Your task to perform on an android device: star an email in the gmail app Image 0: 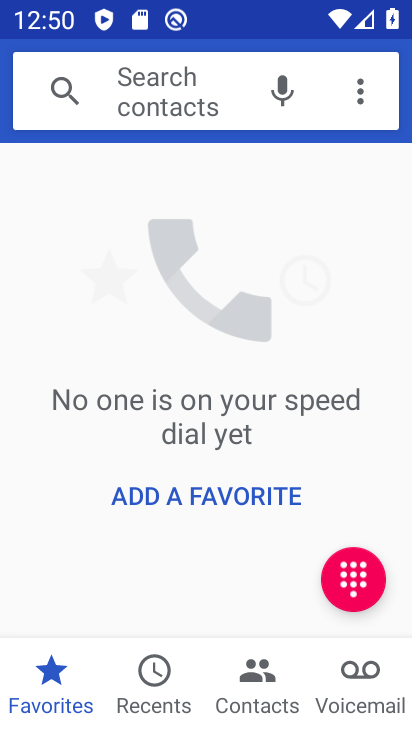
Step 0: press home button
Your task to perform on an android device: star an email in the gmail app Image 1: 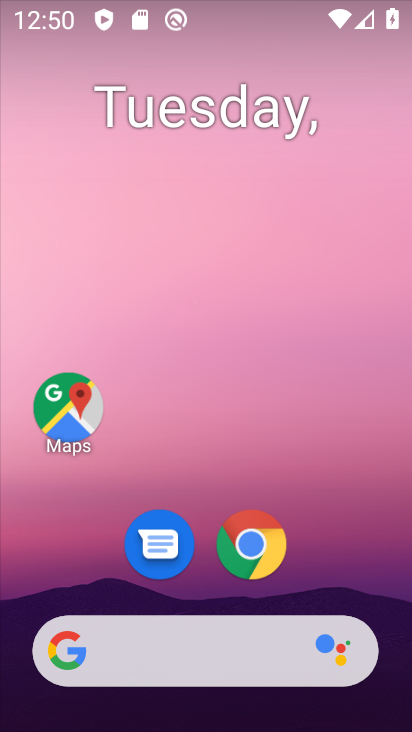
Step 1: drag from (398, 638) to (293, 122)
Your task to perform on an android device: star an email in the gmail app Image 2: 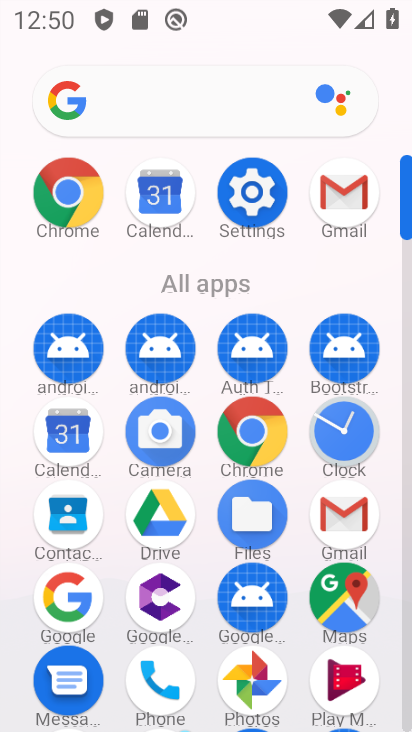
Step 2: click (407, 684)
Your task to perform on an android device: star an email in the gmail app Image 3: 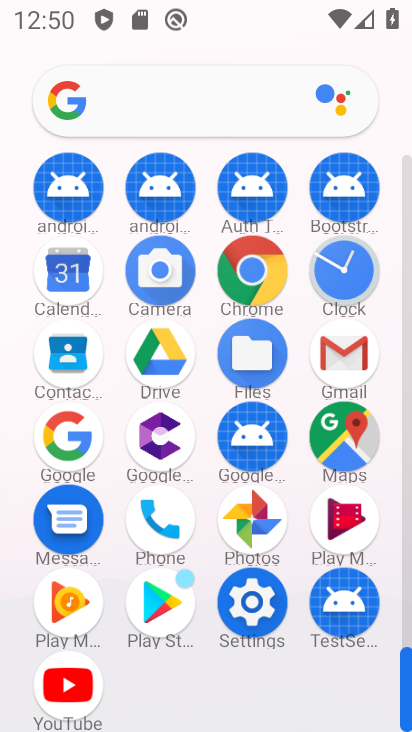
Step 3: click (344, 355)
Your task to perform on an android device: star an email in the gmail app Image 4: 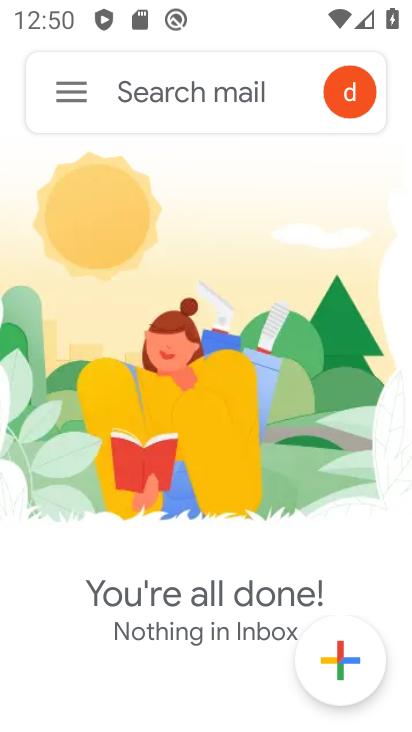
Step 4: click (74, 99)
Your task to perform on an android device: star an email in the gmail app Image 5: 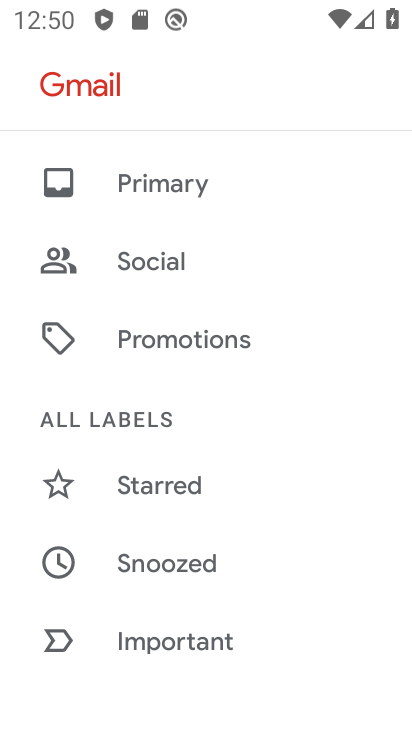
Step 5: drag from (276, 586) to (257, 197)
Your task to perform on an android device: star an email in the gmail app Image 6: 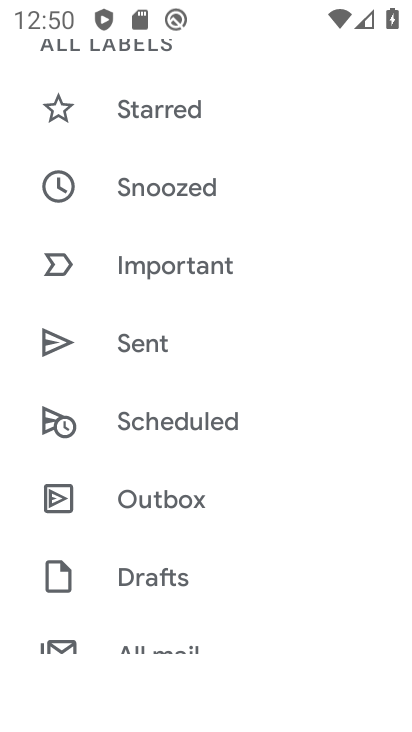
Step 6: drag from (278, 644) to (305, 263)
Your task to perform on an android device: star an email in the gmail app Image 7: 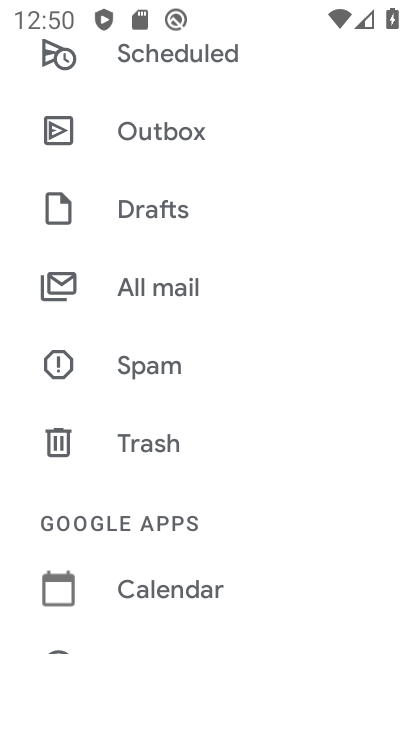
Step 7: click (142, 275)
Your task to perform on an android device: star an email in the gmail app Image 8: 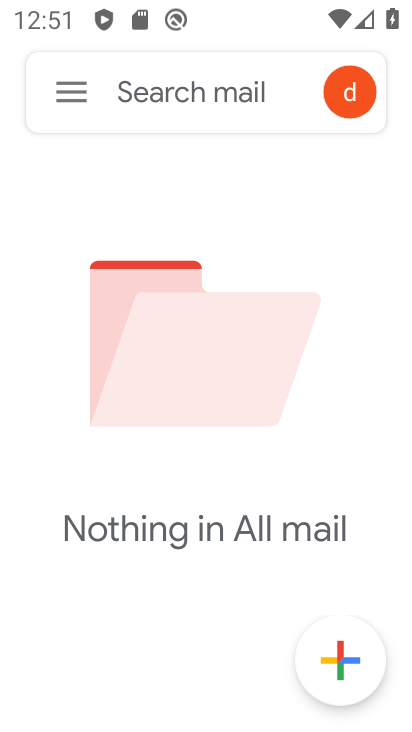
Step 8: task complete